Your task to perform on an android device: turn vacation reply on in the gmail app Image 0: 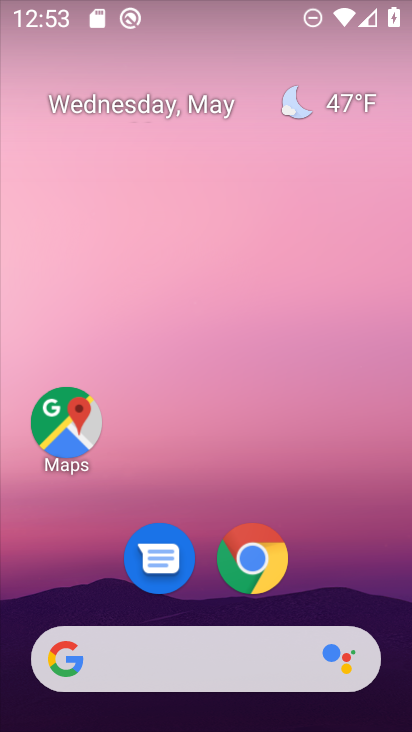
Step 0: drag from (213, 550) to (338, 6)
Your task to perform on an android device: turn vacation reply on in the gmail app Image 1: 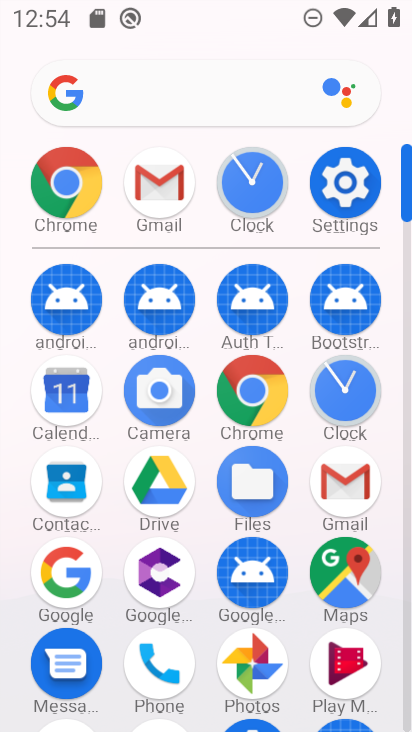
Step 1: click (338, 495)
Your task to perform on an android device: turn vacation reply on in the gmail app Image 2: 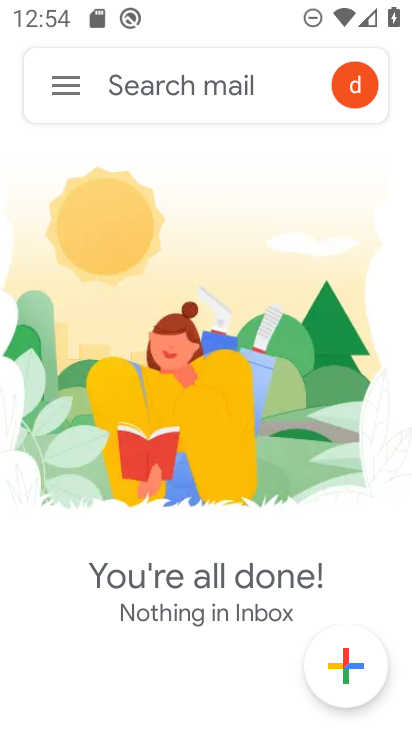
Step 2: click (43, 73)
Your task to perform on an android device: turn vacation reply on in the gmail app Image 3: 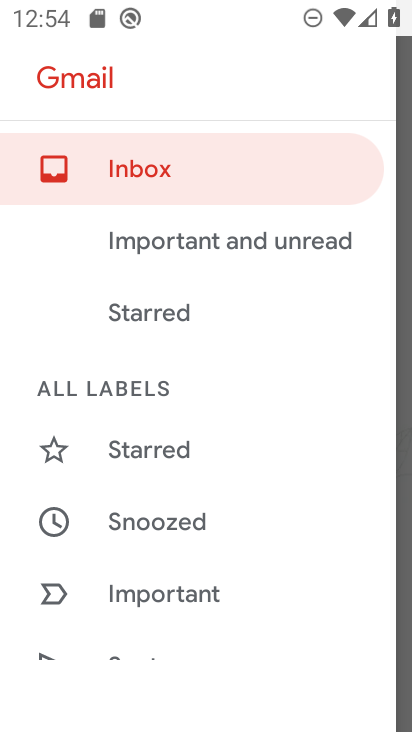
Step 3: drag from (186, 555) to (408, 468)
Your task to perform on an android device: turn vacation reply on in the gmail app Image 4: 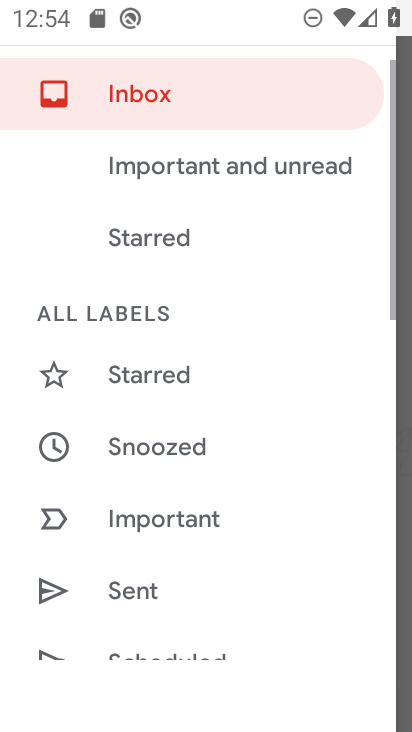
Step 4: drag from (230, 550) to (314, 3)
Your task to perform on an android device: turn vacation reply on in the gmail app Image 5: 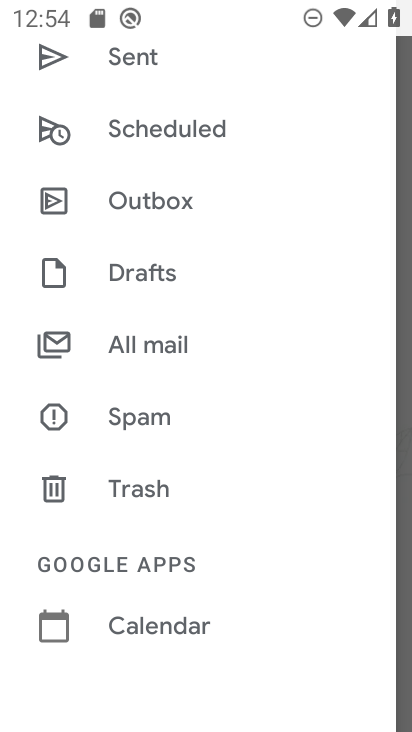
Step 5: drag from (213, 584) to (307, 27)
Your task to perform on an android device: turn vacation reply on in the gmail app Image 6: 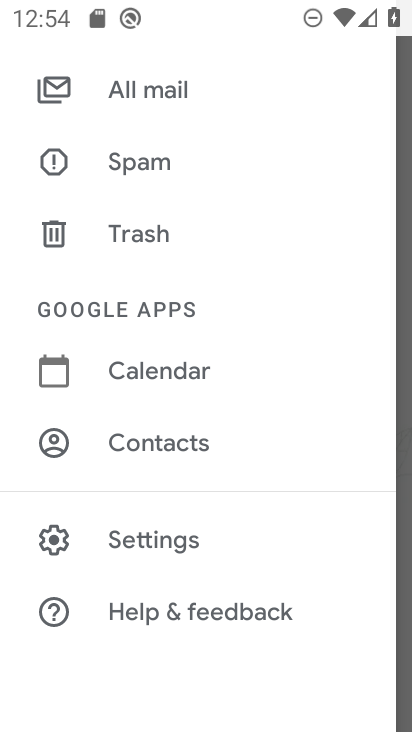
Step 6: click (174, 544)
Your task to perform on an android device: turn vacation reply on in the gmail app Image 7: 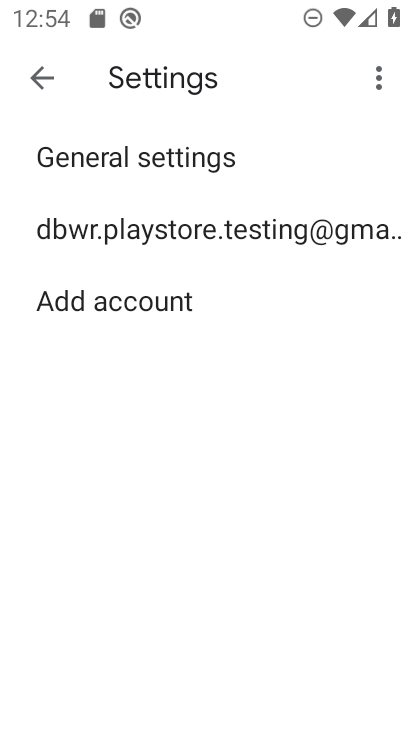
Step 7: click (149, 224)
Your task to perform on an android device: turn vacation reply on in the gmail app Image 8: 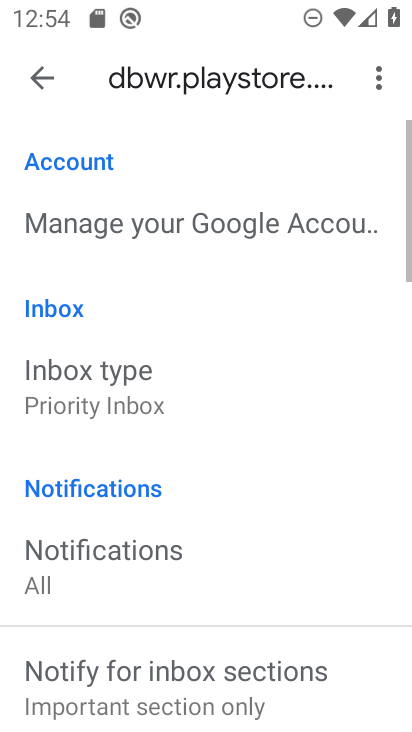
Step 8: drag from (132, 535) to (201, 55)
Your task to perform on an android device: turn vacation reply on in the gmail app Image 9: 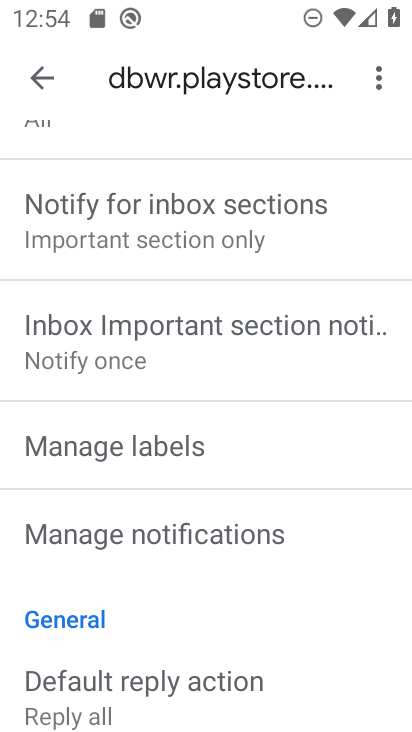
Step 9: drag from (146, 539) to (195, 196)
Your task to perform on an android device: turn vacation reply on in the gmail app Image 10: 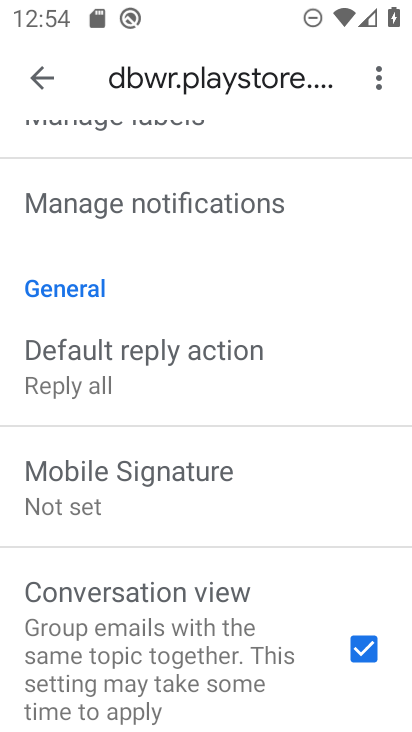
Step 10: drag from (171, 583) to (240, 87)
Your task to perform on an android device: turn vacation reply on in the gmail app Image 11: 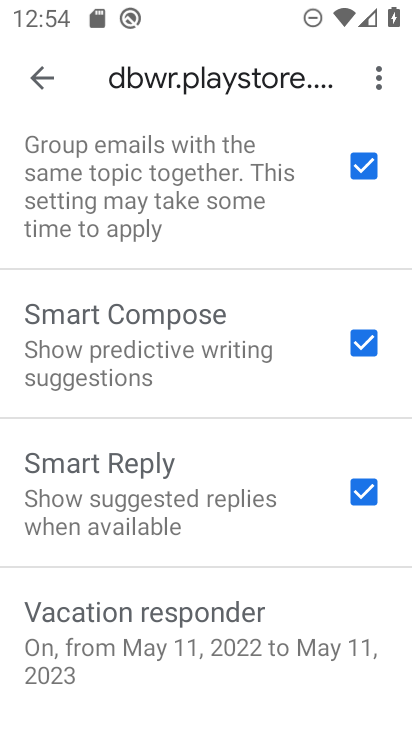
Step 11: click (196, 638)
Your task to perform on an android device: turn vacation reply on in the gmail app Image 12: 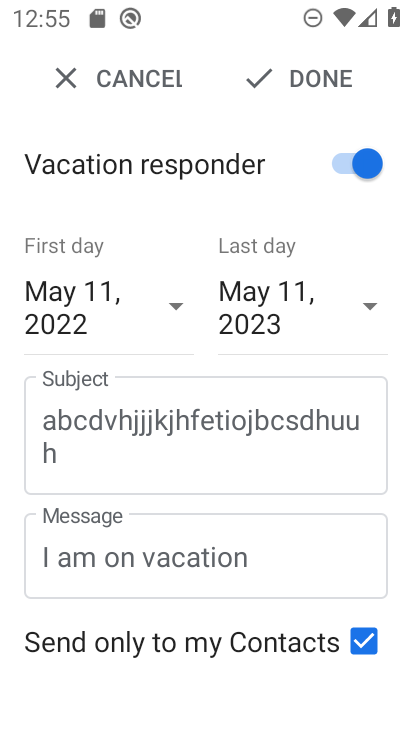
Step 12: task complete